Your task to perform on an android device: Show me popular games on the Play Store Image 0: 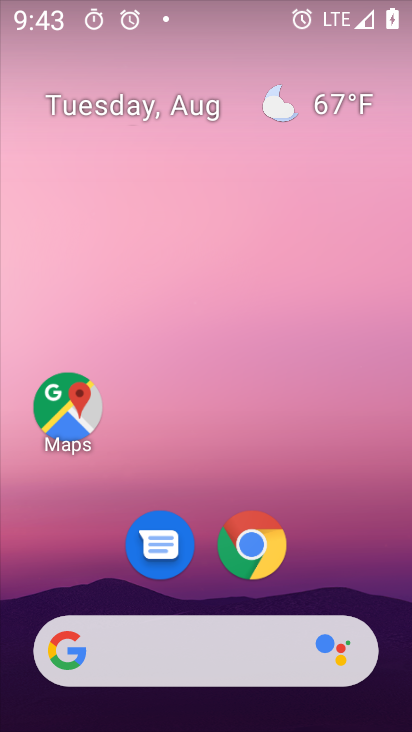
Step 0: drag from (198, 654) to (311, 16)
Your task to perform on an android device: Show me popular games on the Play Store Image 1: 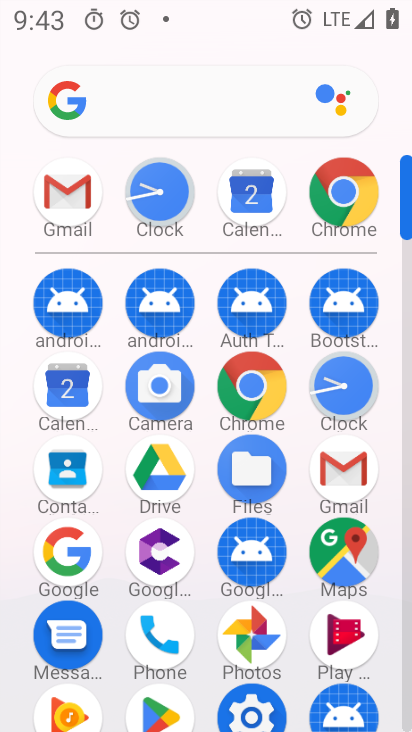
Step 1: drag from (234, 540) to (266, 15)
Your task to perform on an android device: Show me popular games on the Play Store Image 2: 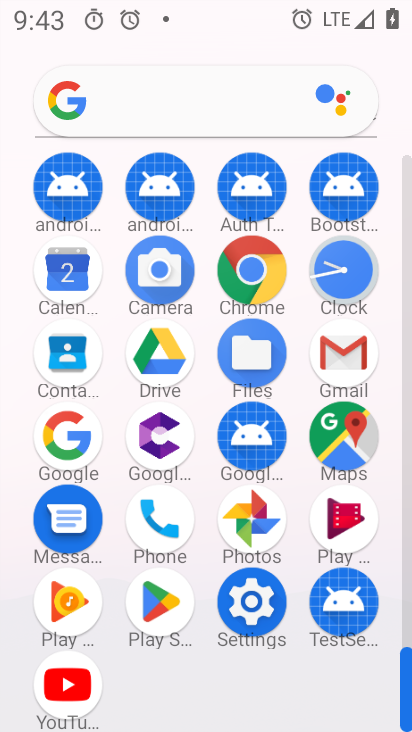
Step 2: click (165, 616)
Your task to perform on an android device: Show me popular games on the Play Store Image 3: 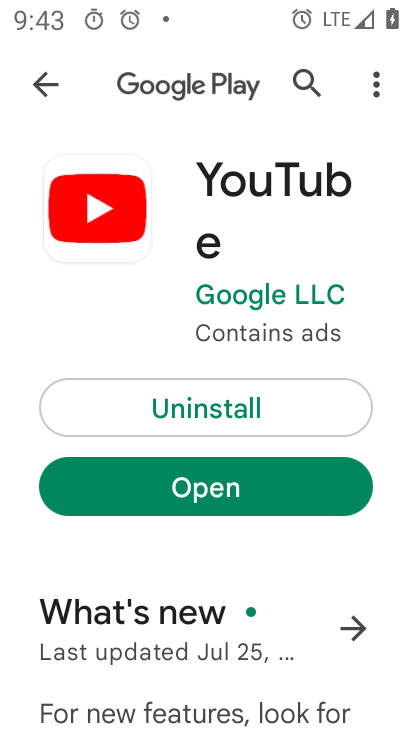
Step 3: click (47, 100)
Your task to perform on an android device: Show me popular games on the Play Store Image 4: 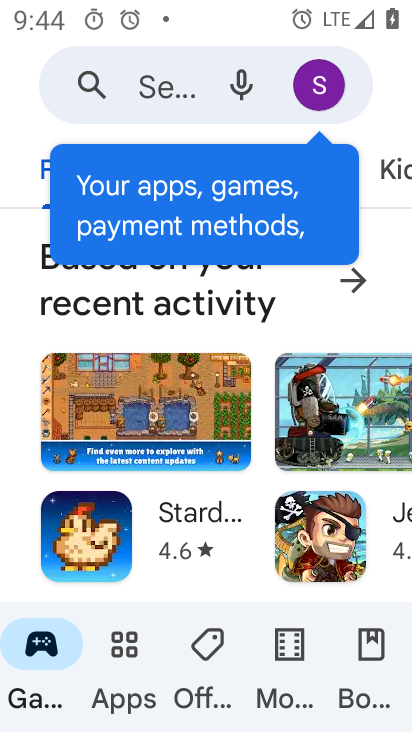
Step 4: task complete